Your task to perform on an android device: toggle javascript in the chrome app Image 0: 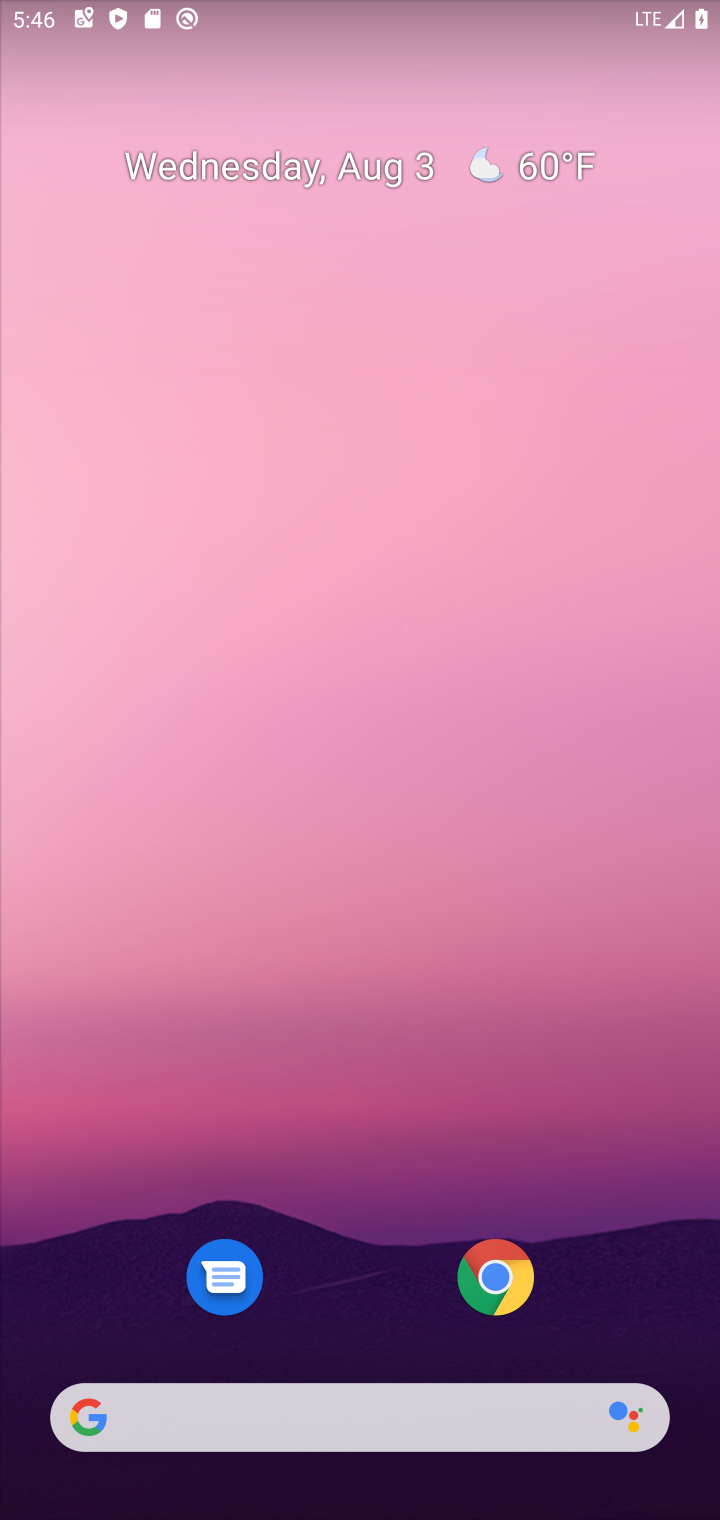
Step 0: click (526, 1277)
Your task to perform on an android device: toggle javascript in the chrome app Image 1: 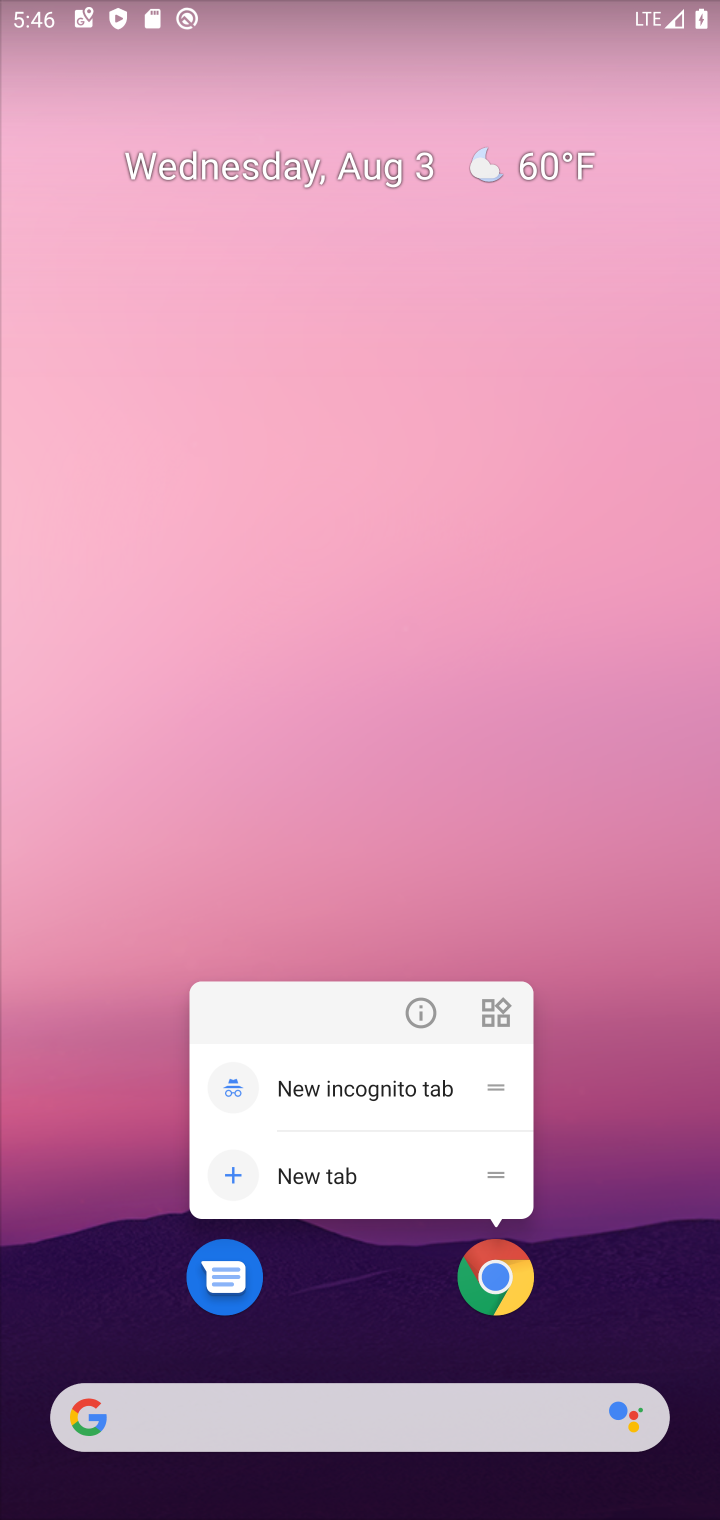
Step 1: click (505, 1299)
Your task to perform on an android device: toggle javascript in the chrome app Image 2: 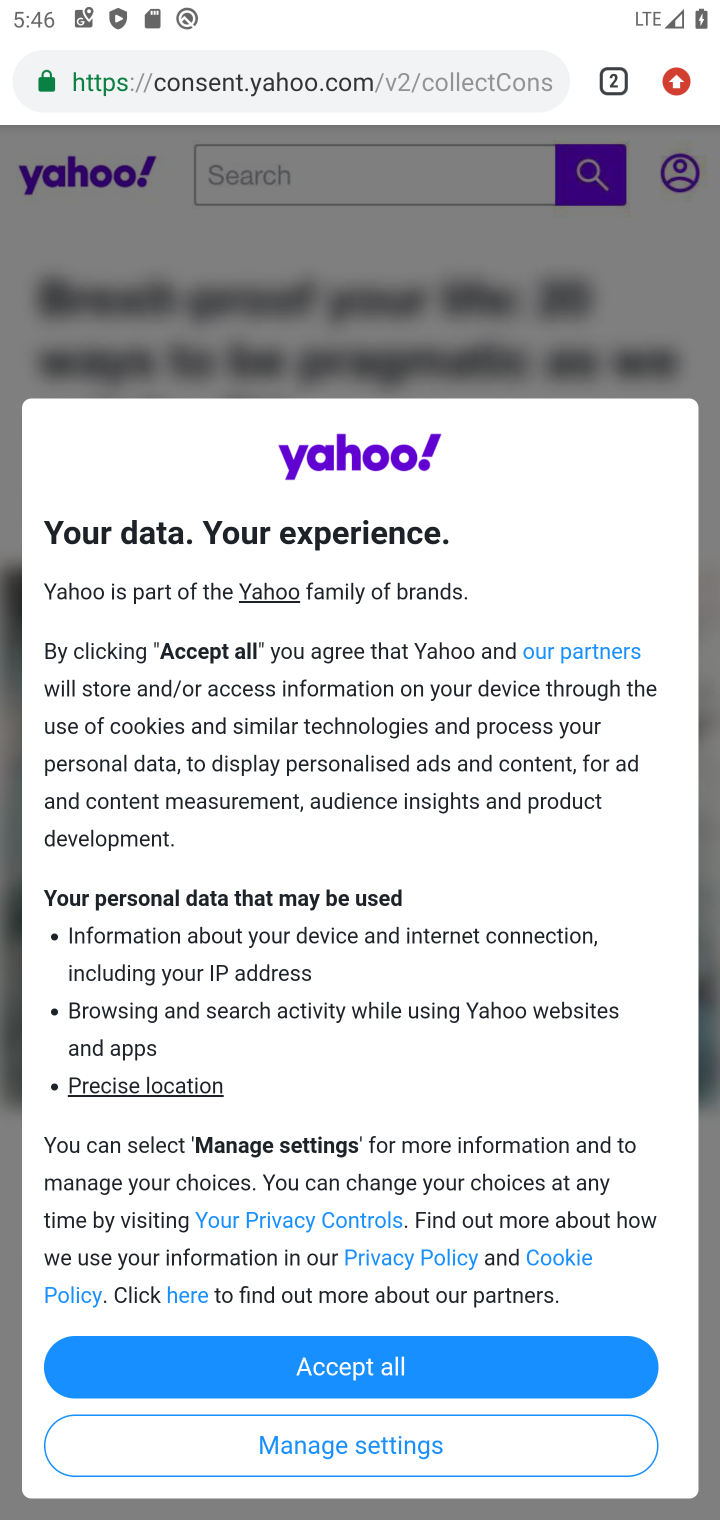
Step 2: drag from (677, 78) to (426, 1076)
Your task to perform on an android device: toggle javascript in the chrome app Image 3: 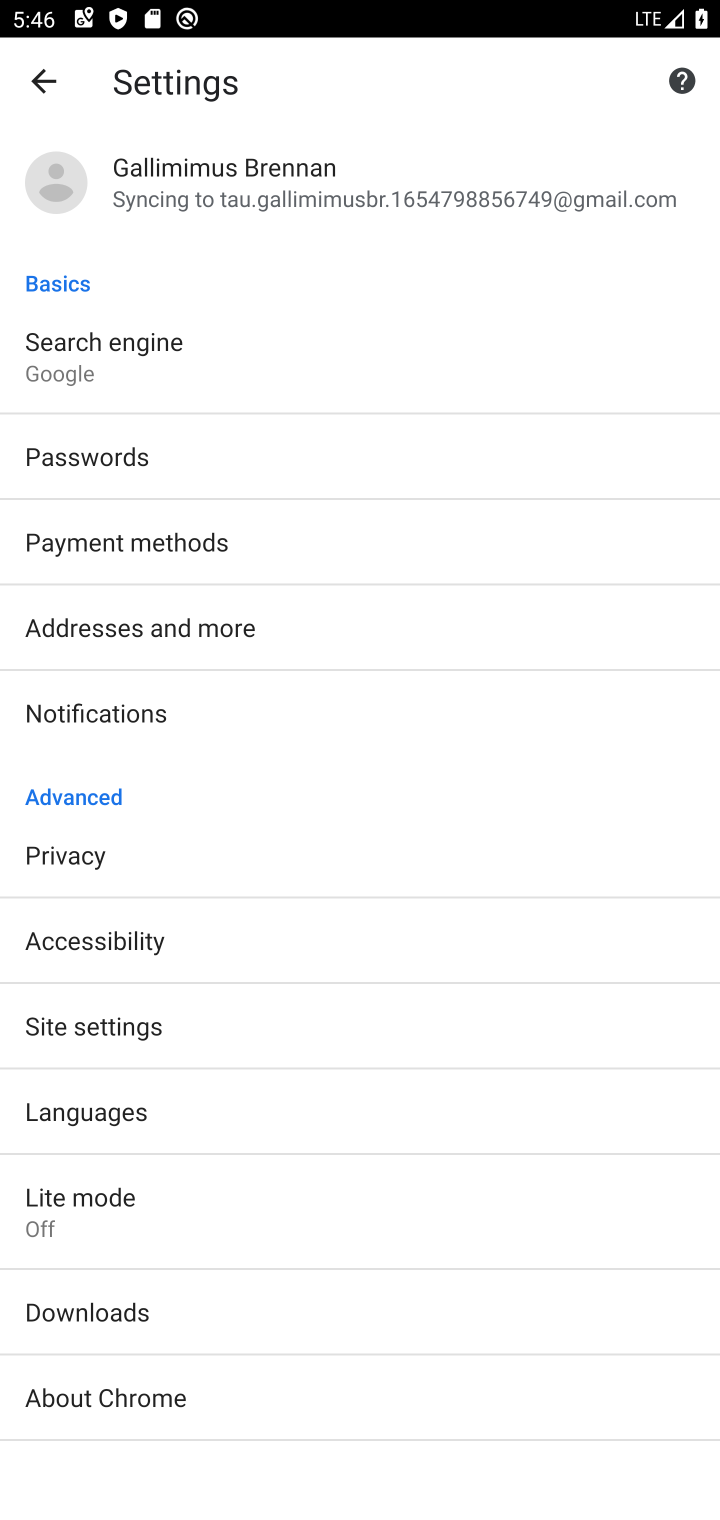
Step 3: click (126, 1034)
Your task to perform on an android device: toggle javascript in the chrome app Image 4: 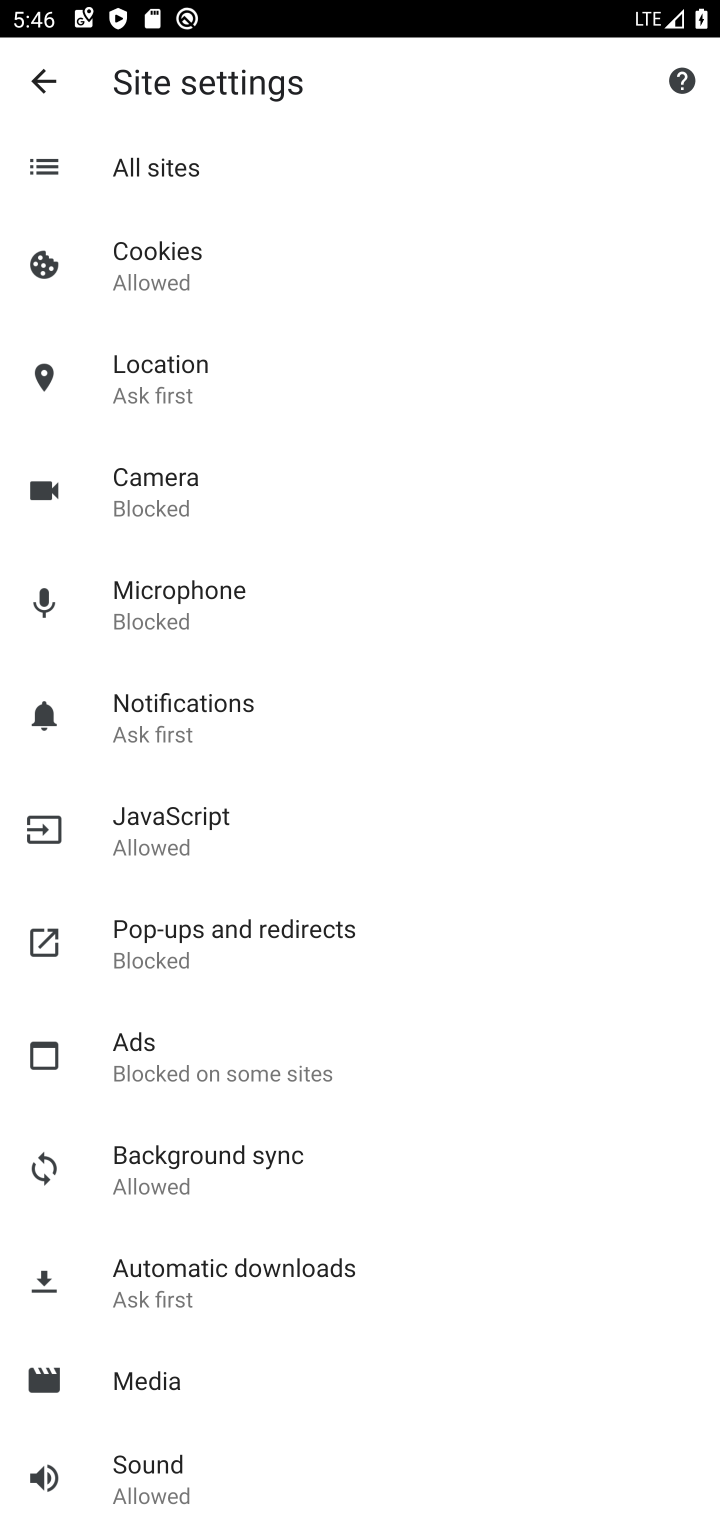
Step 4: click (170, 840)
Your task to perform on an android device: toggle javascript in the chrome app Image 5: 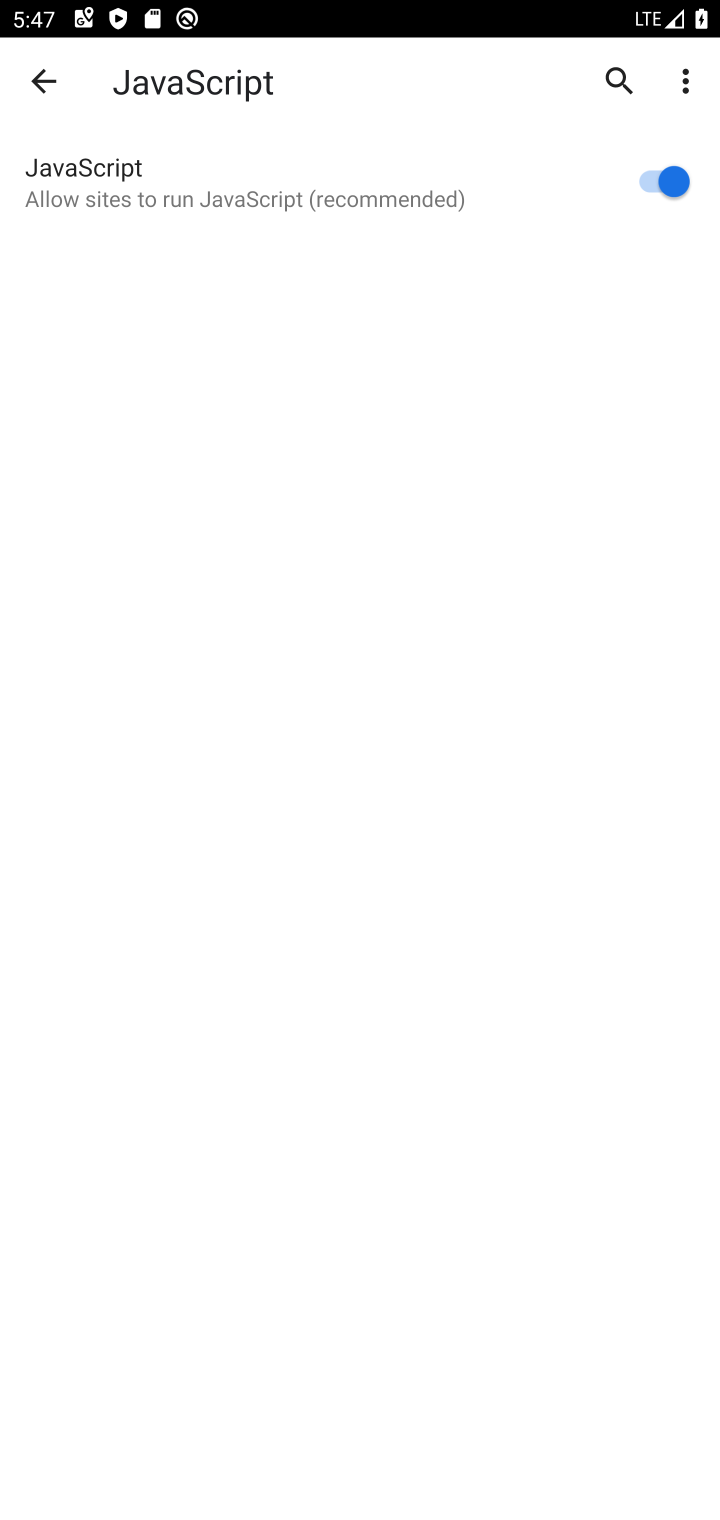
Step 5: click (667, 188)
Your task to perform on an android device: toggle javascript in the chrome app Image 6: 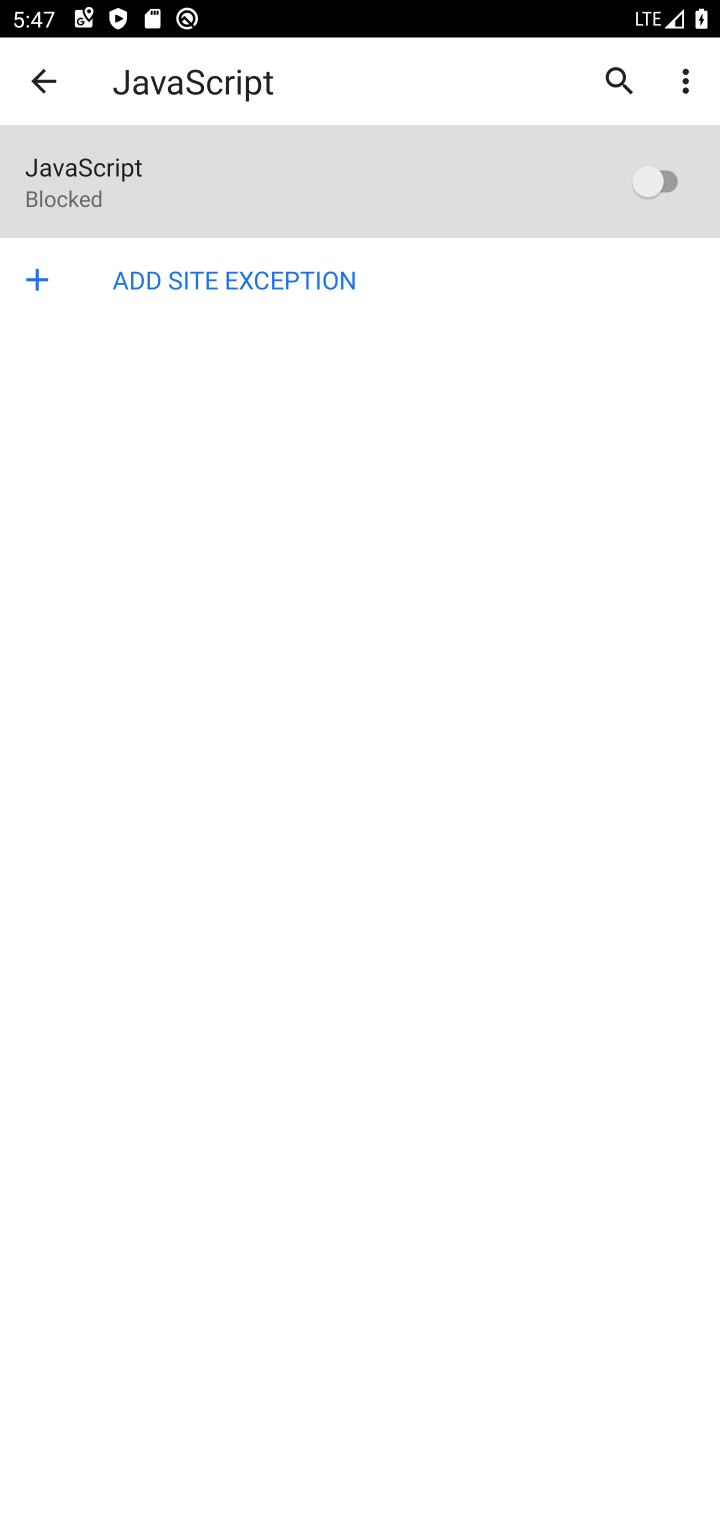
Step 6: task complete